Your task to perform on an android device: Go to Reddit.com Image 0: 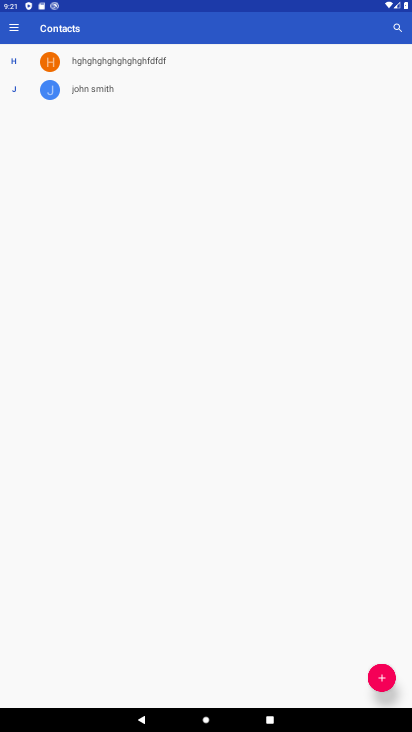
Step 0: press home button
Your task to perform on an android device: Go to Reddit.com Image 1: 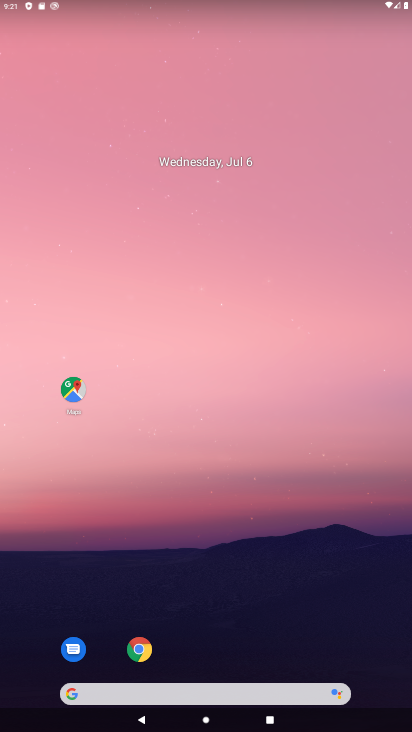
Step 1: drag from (223, 661) to (250, 0)
Your task to perform on an android device: Go to Reddit.com Image 2: 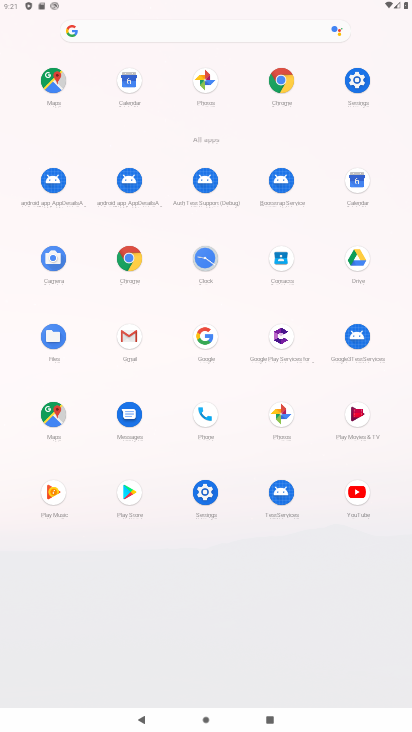
Step 2: click (281, 76)
Your task to perform on an android device: Go to Reddit.com Image 3: 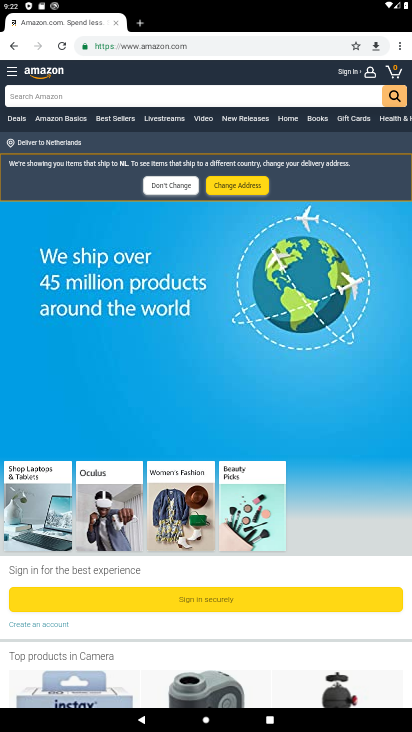
Step 3: click (139, 24)
Your task to perform on an android device: Go to Reddit.com Image 4: 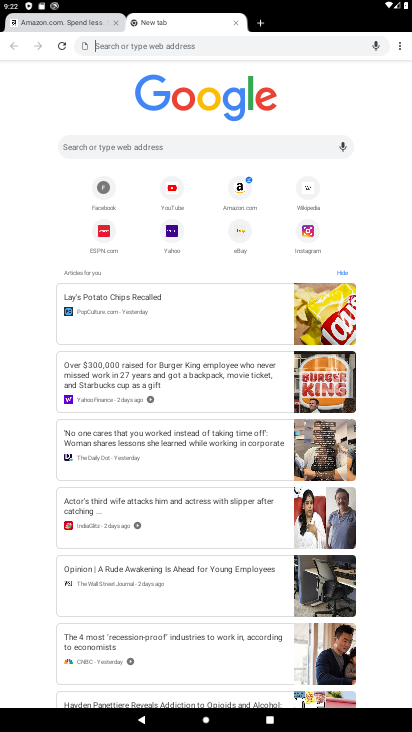
Step 4: click (133, 142)
Your task to perform on an android device: Go to Reddit.com Image 5: 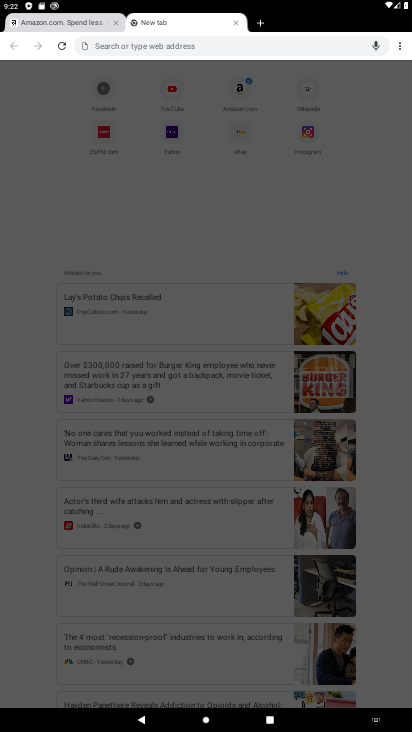
Step 5: type "reddit"
Your task to perform on an android device: Go to Reddit.com Image 6: 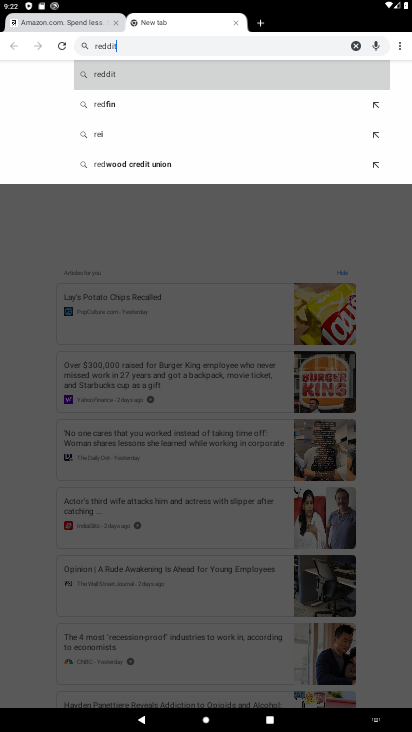
Step 6: type ""
Your task to perform on an android device: Go to Reddit.com Image 7: 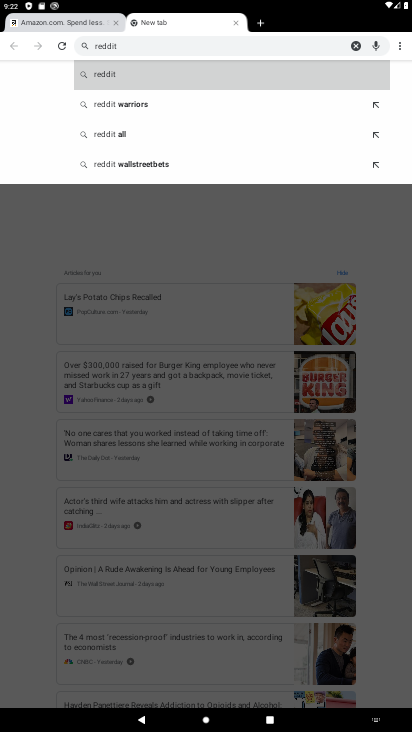
Step 7: click (113, 74)
Your task to perform on an android device: Go to Reddit.com Image 8: 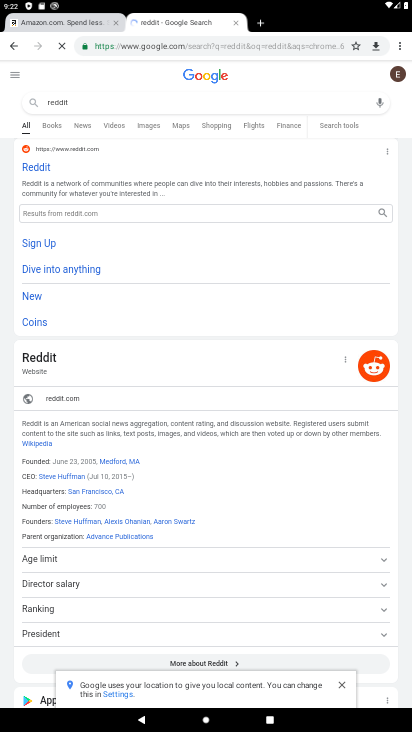
Step 8: click (26, 163)
Your task to perform on an android device: Go to Reddit.com Image 9: 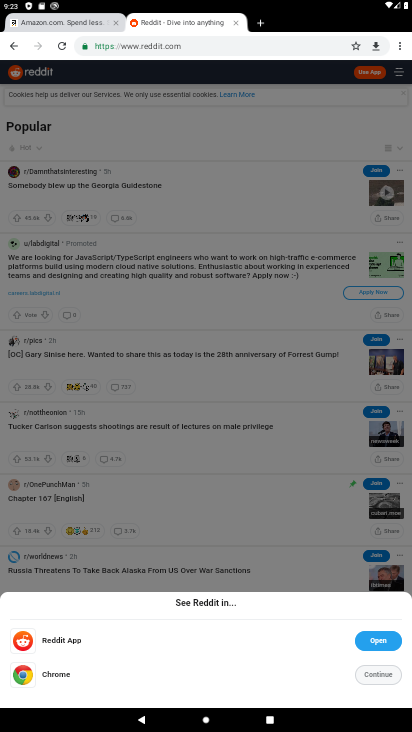
Step 9: click (374, 669)
Your task to perform on an android device: Go to Reddit.com Image 10: 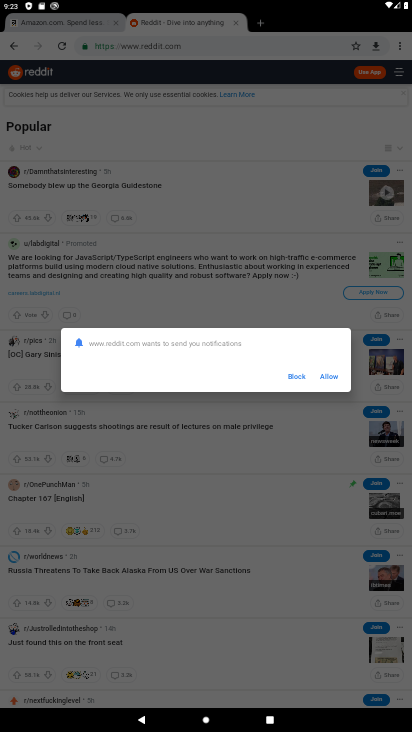
Step 10: click (323, 377)
Your task to perform on an android device: Go to Reddit.com Image 11: 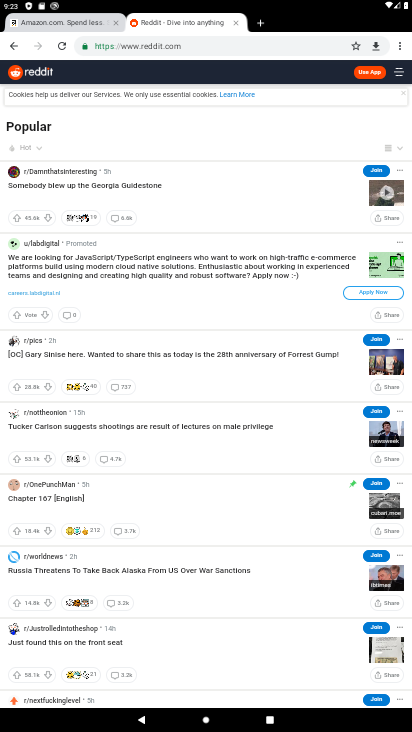
Step 11: task complete